Your task to perform on an android device: Go to network settings Image 0: 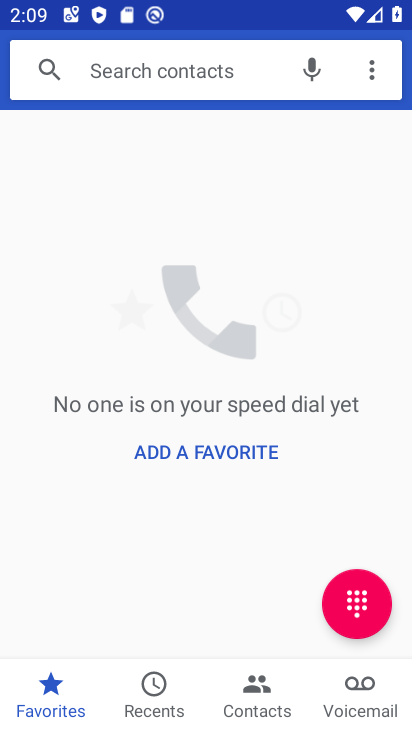
Step 0: press home button
Your task to perform on an android device: Go to network settings Image 1: 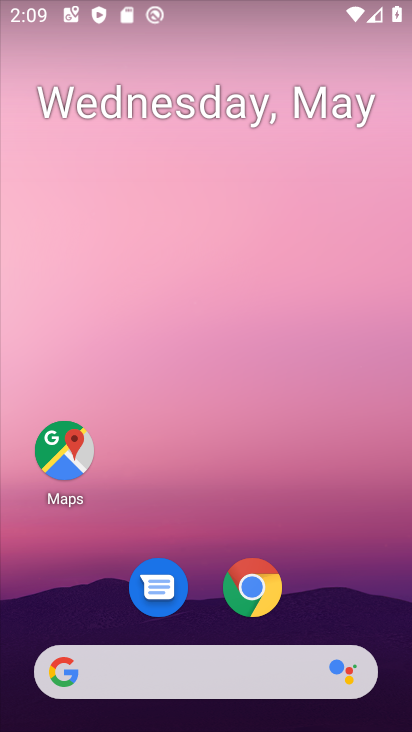
Step 1: drag from (338, 623) to (313, 27)
Your task to perform on an android device: Go to network settings Image 2: 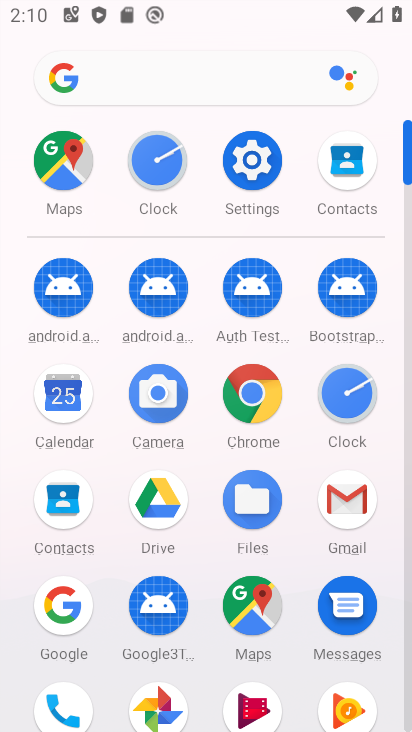
Step 2: click (254, 162)
Your task to perform on an android device: Go to network settings Image 3: 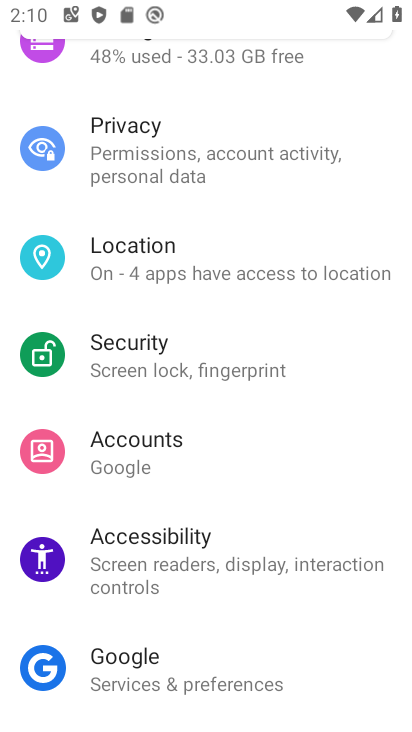
Step 3: drag from (207, 198) to (195, 545)
Your task to perform on an android device: Go to network settings Image 4: 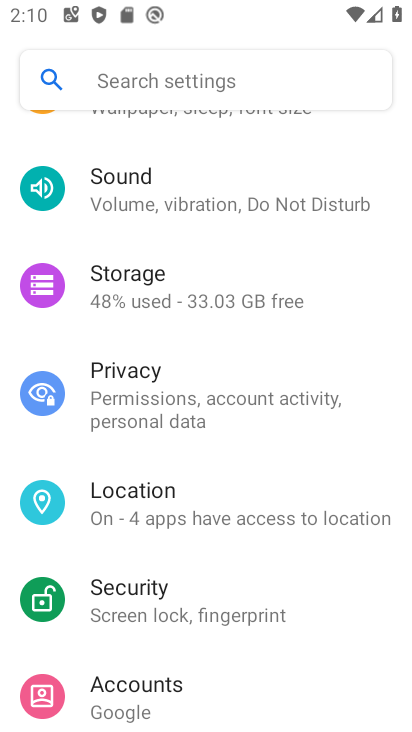
Step 4: drag from (207, 220) to (219, 603)
Your task to perform on an android device: Go to network settings Image 5: 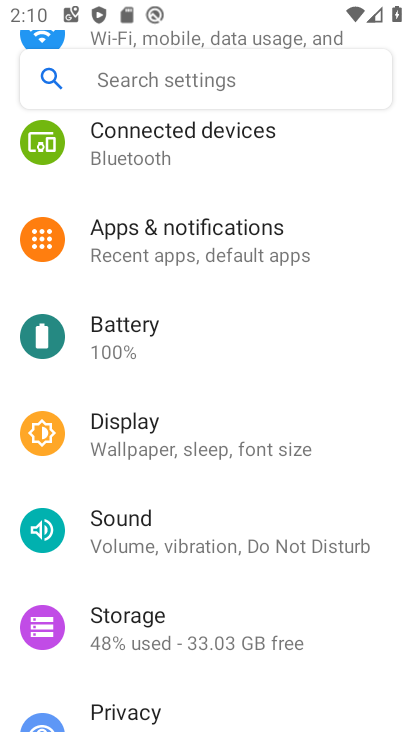
Step 5: drag from (189, 147) to (193, 520)
Your task to perform on an android device: Go to network settings Image 6: 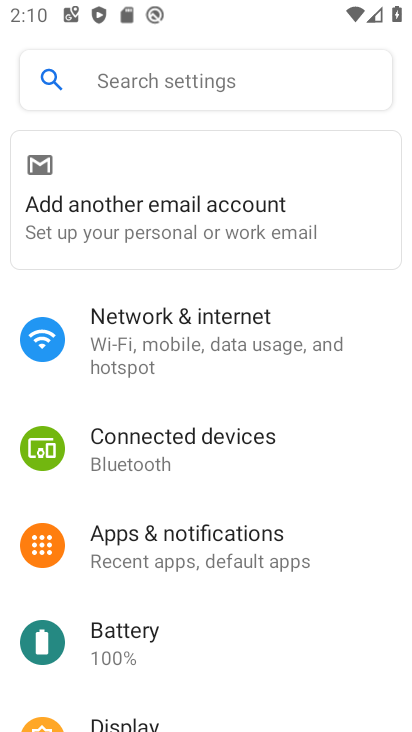
Step 6: click (160, 350)
Your task to perform on an android device: Go to network settings Image 7: 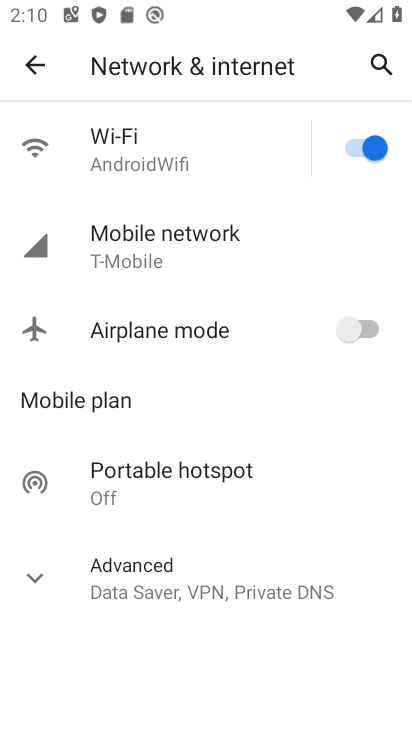
Step 7: task complete